Your task to perform on an android device: turn notification dots off Image 0: 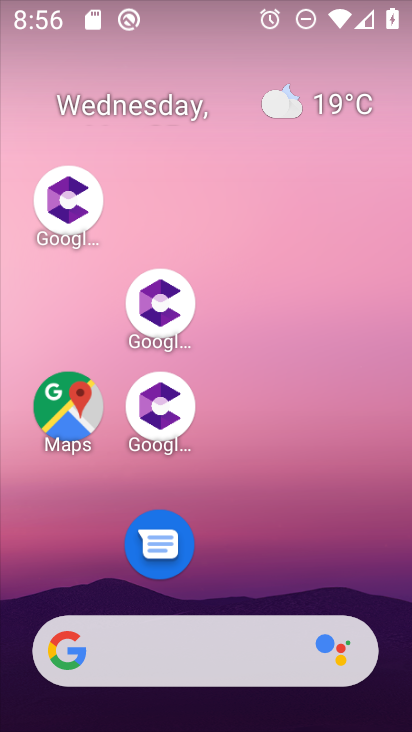
Step 0: press home button
Your task to perform on an android device: turn notification dots off Image 1: 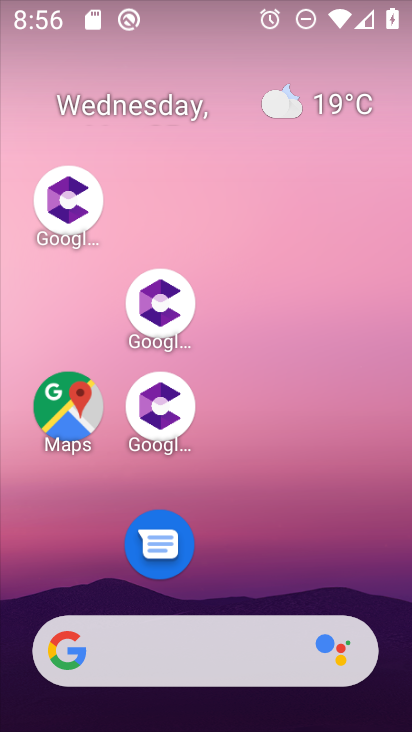
Step 1: drag from (327, 501) to (247, 81)
Your task to perform on an android device: turn notification dots off Image 2: 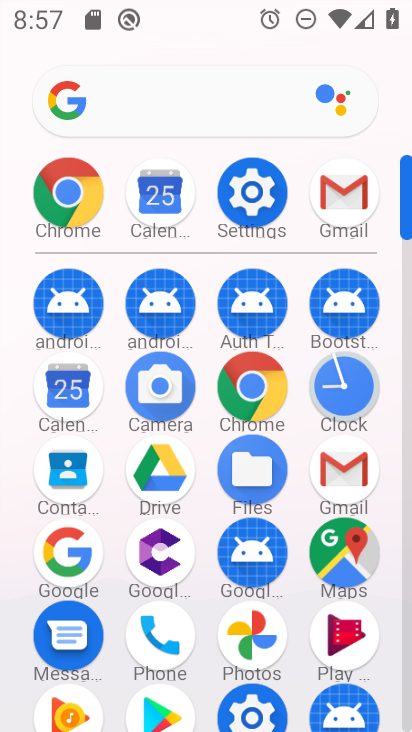
Step 2: click (257, 215)
Your task to perform on an android device: turn notification dots off Image 3: 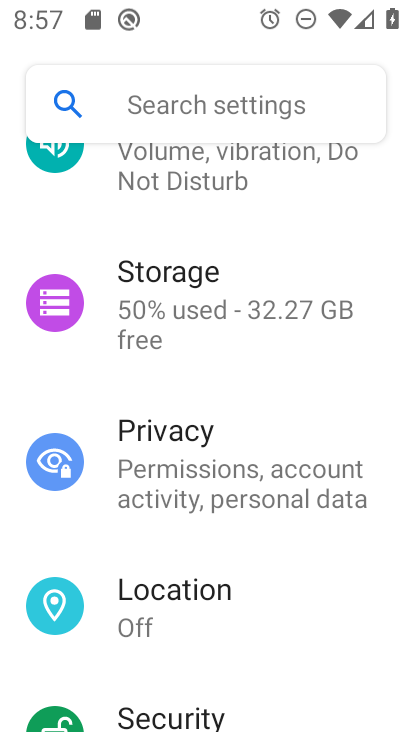
Step 3: drag from (240, 243) to (131, 729)
Your task to perform on an android device: turn notification dots off Image 4: 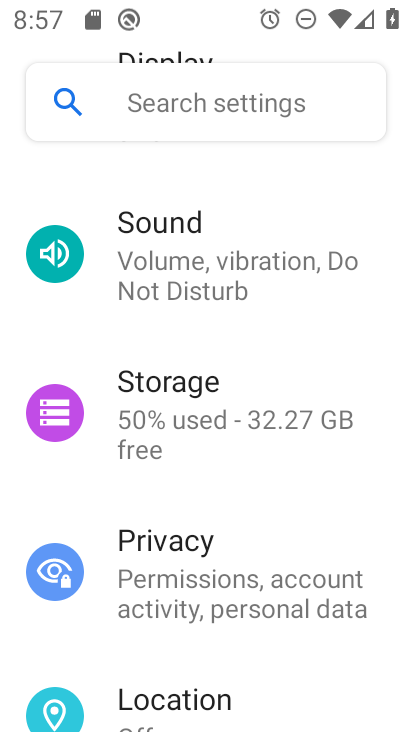
Step 4: drag from (242, 326) to (103, 717)
Your task to perform on an android device: turn notification dots off Image 5: 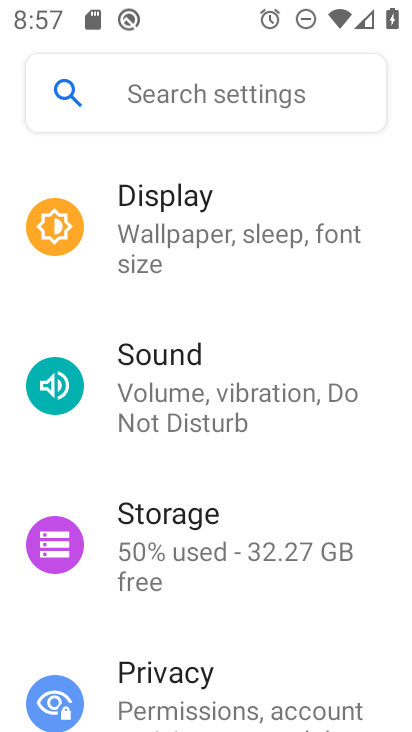
Step 5: drag from (197, 311) to (104, 692)
Your task to perform on an android device: turn notification dots off Image 6: 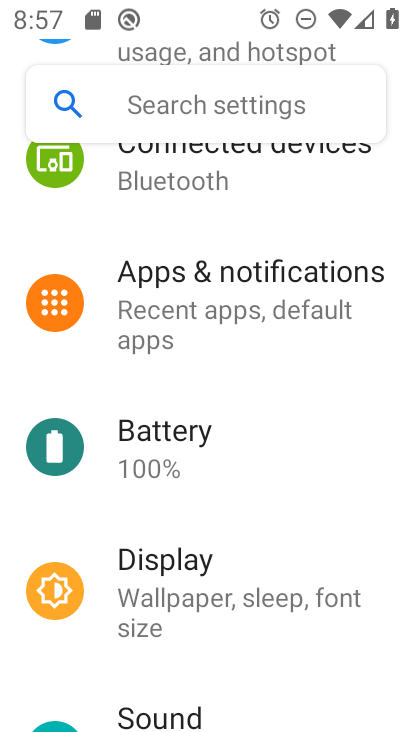
Step 6: click (213, 265)
Your task to perform on an android device: turn notification dots off Image 7: 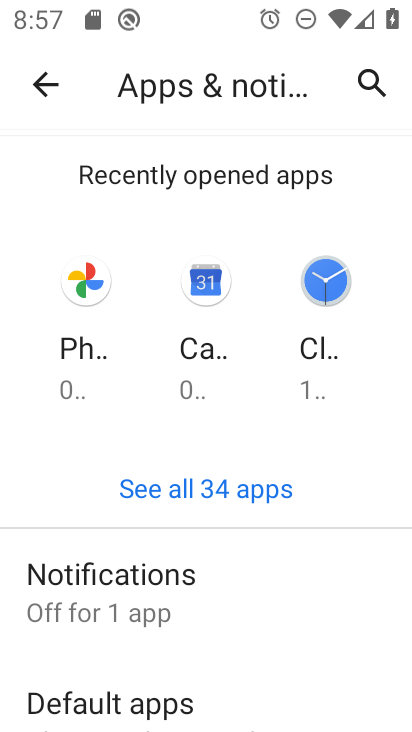
Step 7: drag from (241, 615) to (247, 312)
Your task to perform on an android device: turn notification dots off Image 8: 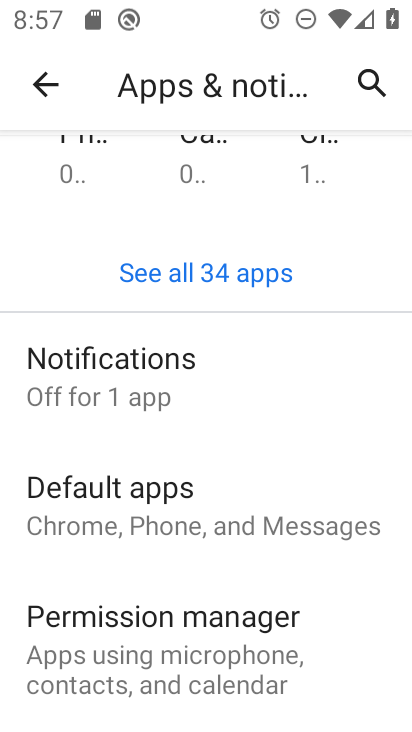
Step 8: drag from (218, 568) to (221, 297)
Your task to perform on an android device: turn notification dots off Image 9: 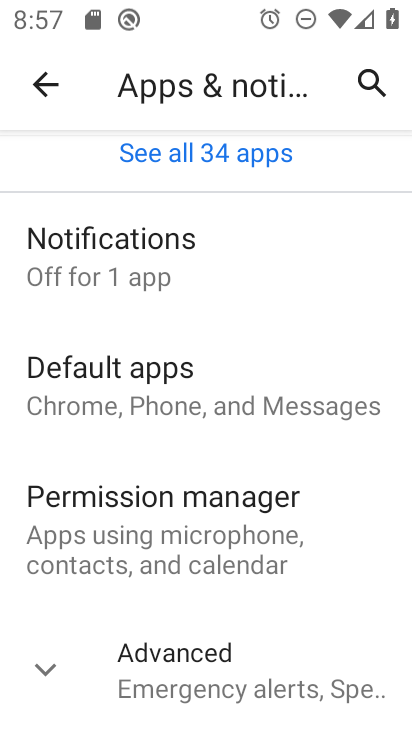
Step 9: click (51, 669)
Your task to perform on an android device: turn notification dots off Image 10: 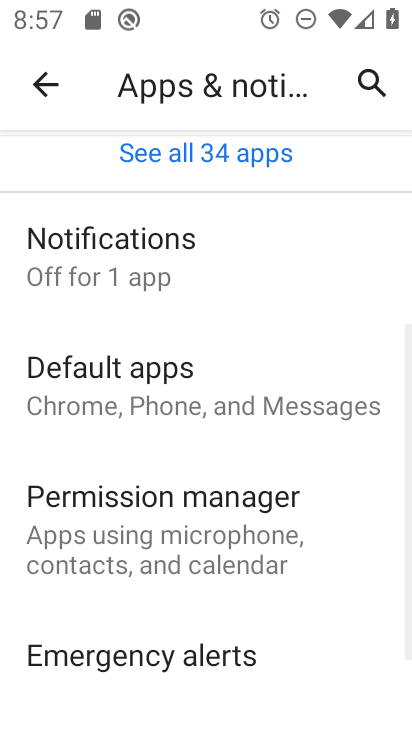
Step 10: drag from (191, 639) to (199, 293)
Your task to perform on an android device: turn notification dots off Image 11: 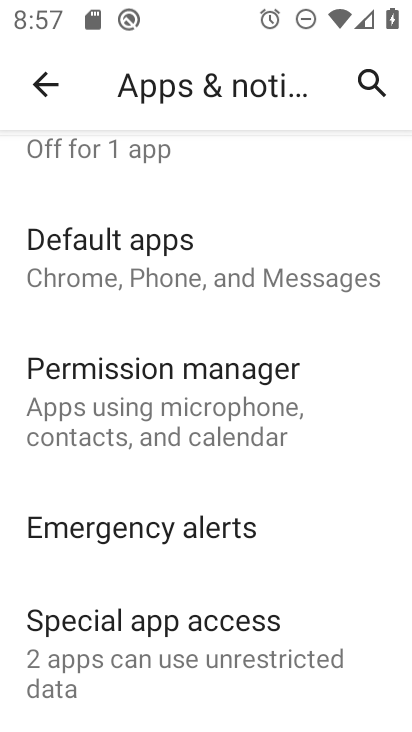
Step 11: drag from (169, 292) to (145, 685)
Your task to perform on an android device: turn notification dots off Image 12: 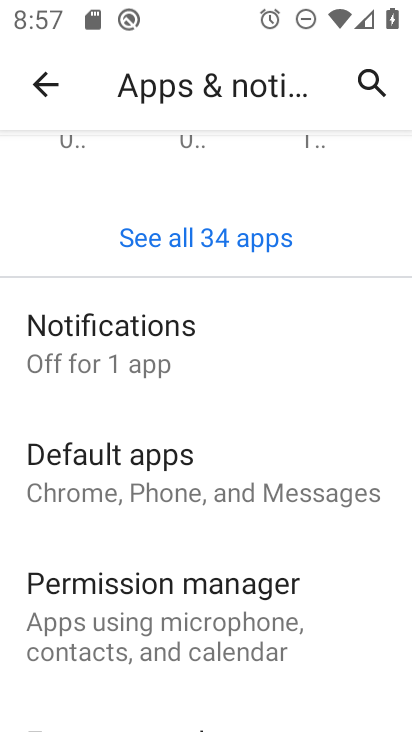
Step 12: click (135, 322)
Your task to perform on an android device: turn notification dots off Image 13: 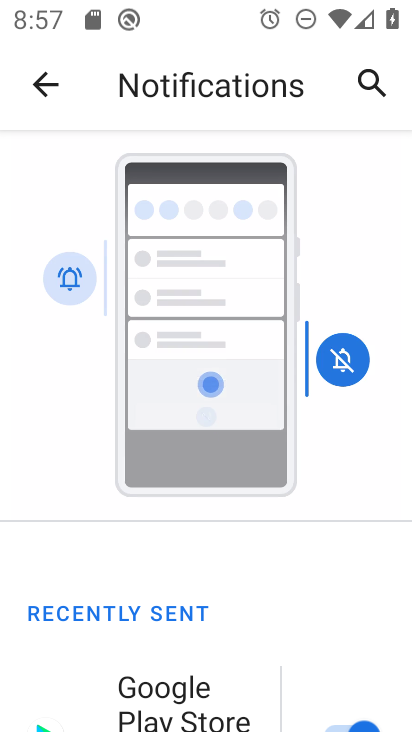
Step 13: drag from (250, 545) to (278, 47)
Your task to perform on an android device: turn notification dots off Image 14: 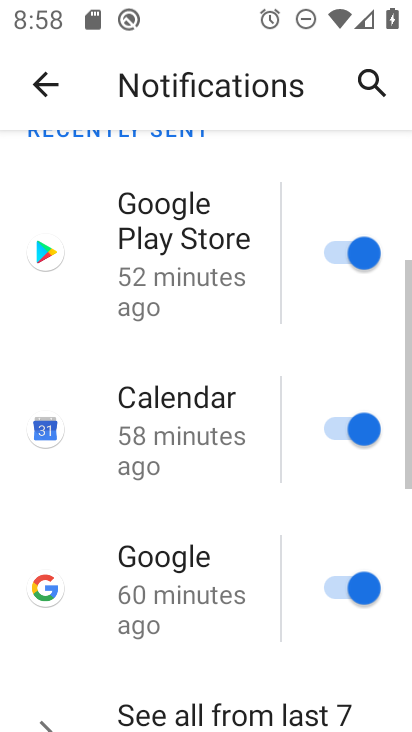
Step 14: drag from (266, 496) to (226, 176)
Your task to perform on an android device: turn notification dots off Image 15: 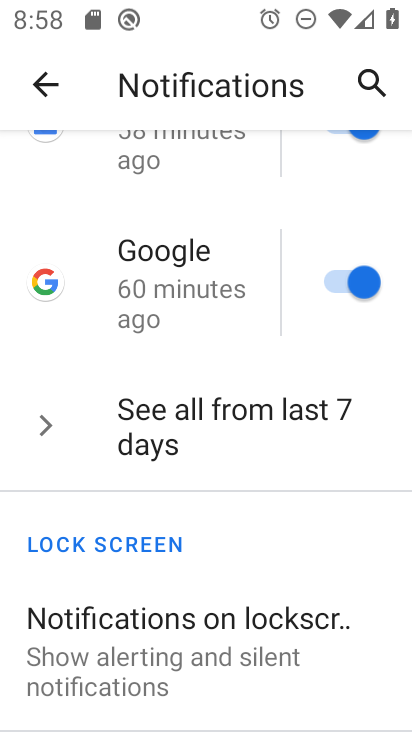
Step 15: drag from (208, 484) to (205, 233)
Your task to perform on an android device: turn notification dots off Image 16: 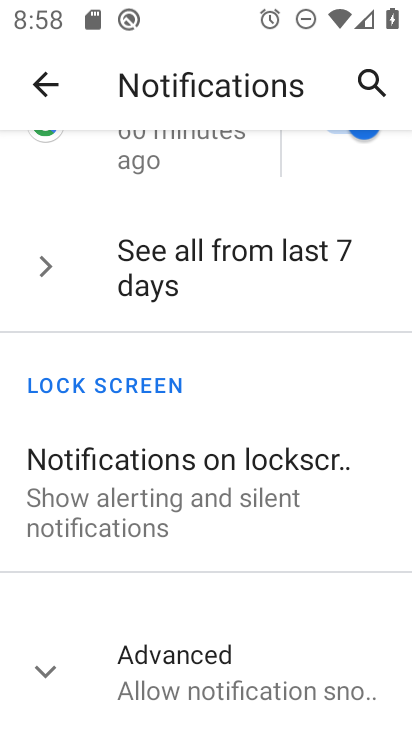
Step 16: click (56, 673)
Your task to perform on an android device: turn notification dots off Image 17: 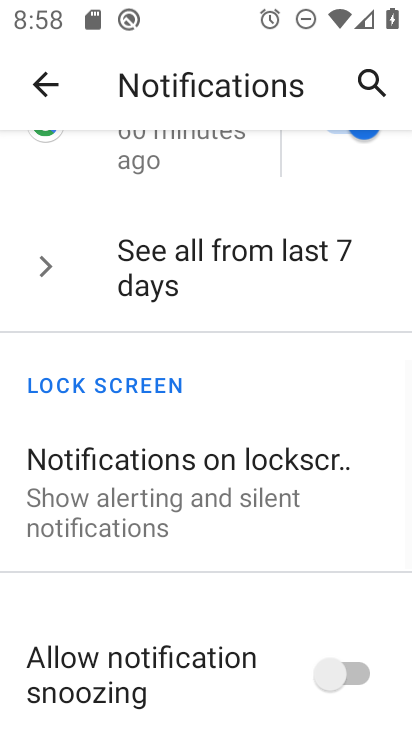
Step 17: task complete